Your task to perform on an android device: change the clock style Image 0: 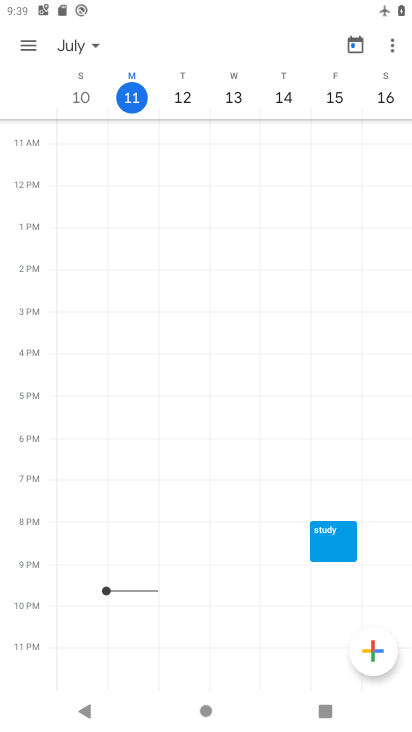
Step 0: press home button
Your task to perform on an android device: change the clock style Image 1: 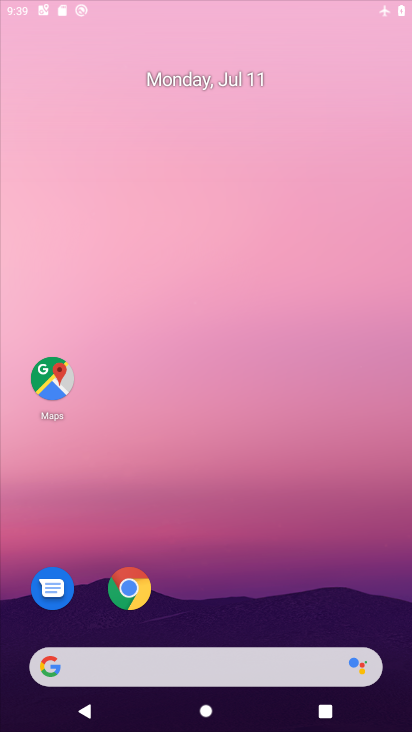
Step 1: press home button
Your task to perform on an android device: change the clock style Image 2: 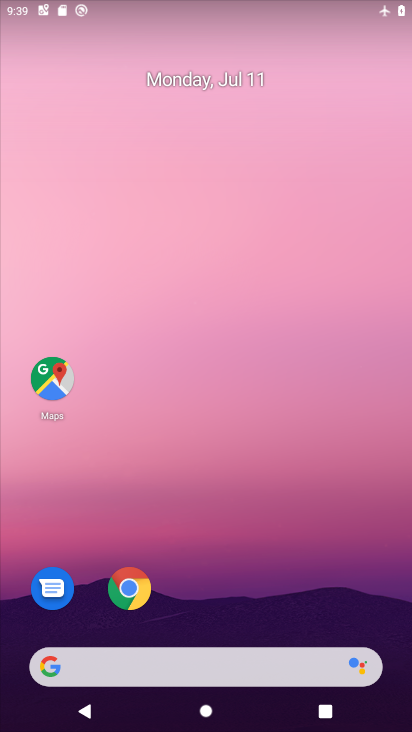
Step 2: drag from (247, 630) to (221, 293)
Your task to perform on an android device: change the clock style Image 3: 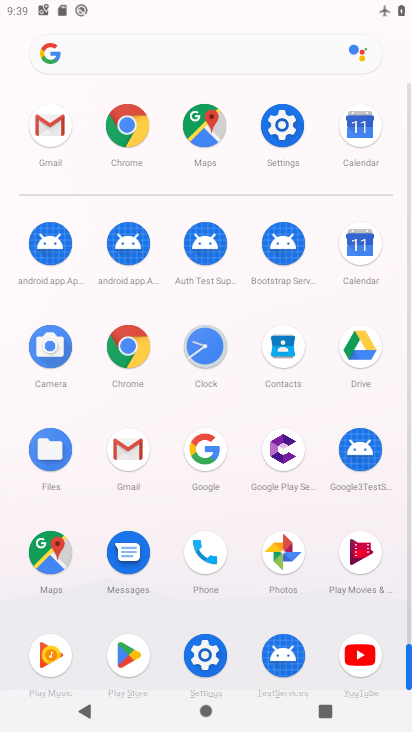
Step 3: click (202, 342)
Your task to perform on an android device: change the clock style Image 4: 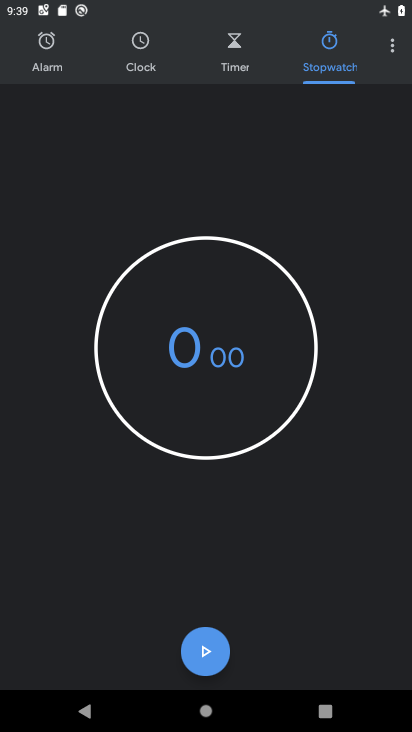
Step 4: click (382, 53)
Your task to perform on an android device: change the clock style Image 5: 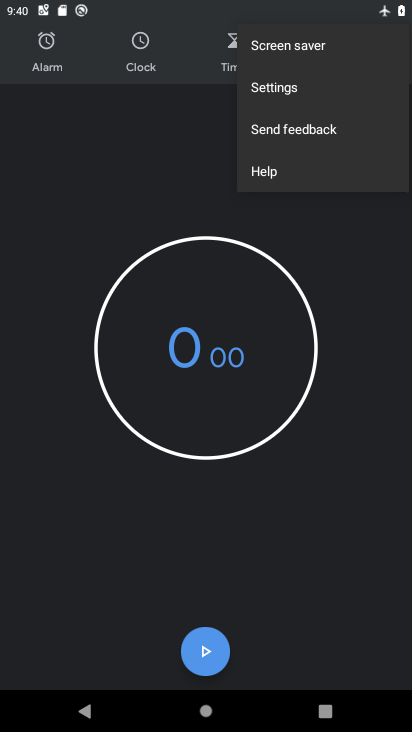
Step 5: click (324, 81)
Your task to perform on an android device: change the clock style Image 6: 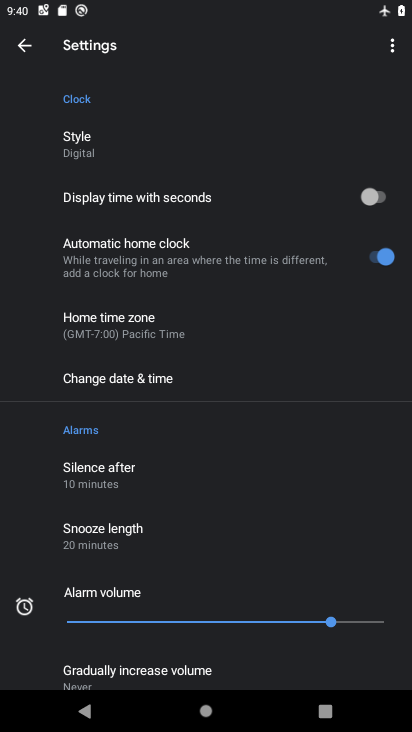
Step 6: click (58, 130)
Your task to perform on an android device: change the clock style Image 7: 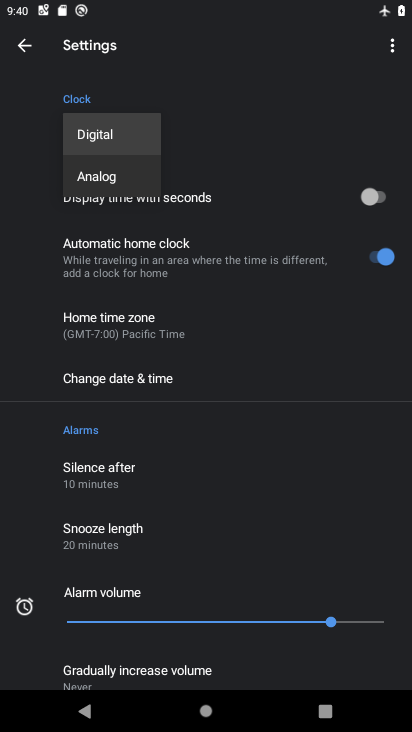
Step 7: click (114, 171)
Your task to perform on an android device: change the clock style Image 8: 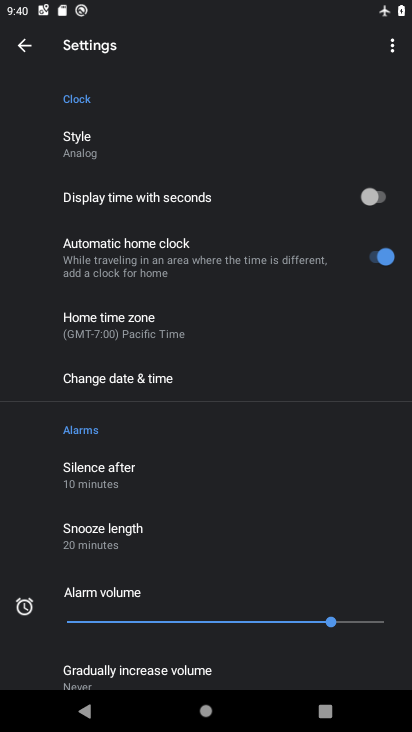
Step 8: task complete